Your task to perform on an android device: allow notifications from all sites in the chrome app Image 0: 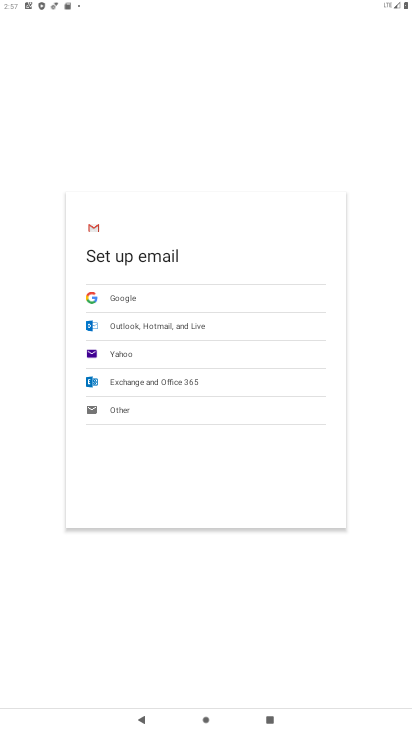
Step 0: press home button
Your task to perform on an android device: allow notifications from all sites in the chrome app Image 1: 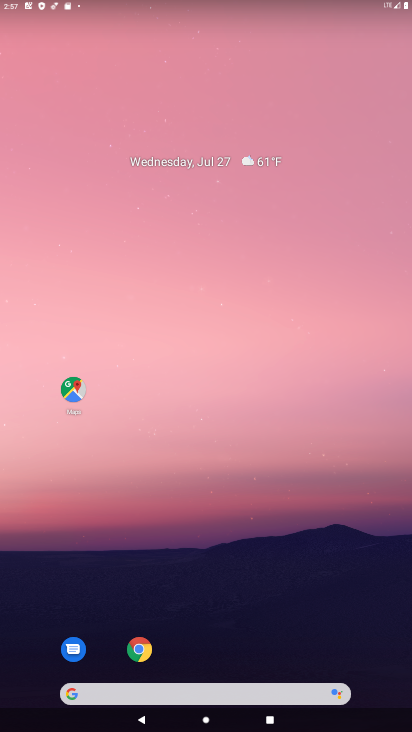
Step 1: click (167, 648)
Your task to perform on an android device: allow notifications from all sites in the chrome app Image 2: 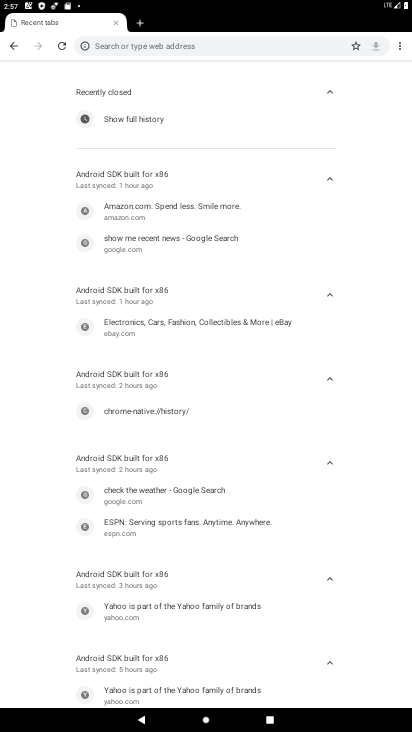
Step 2: press home button
Your task to perform on an android device: allow notifications from all sites in the chrome app Image 3: 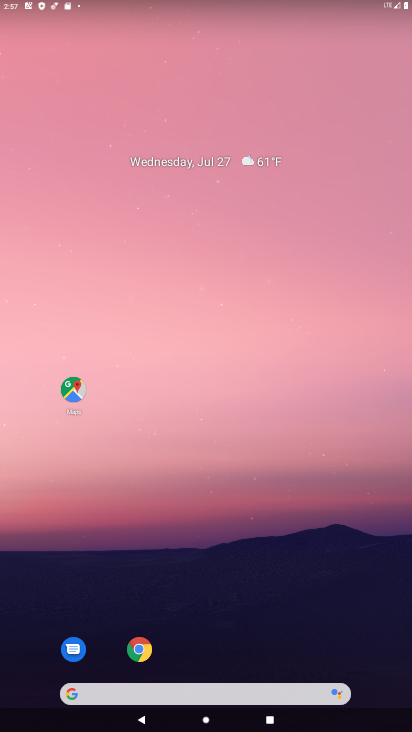
Step 3: click (195, 87)
Your task to perform on an android device: allow notifications from all sites in the chrome app Image 4: 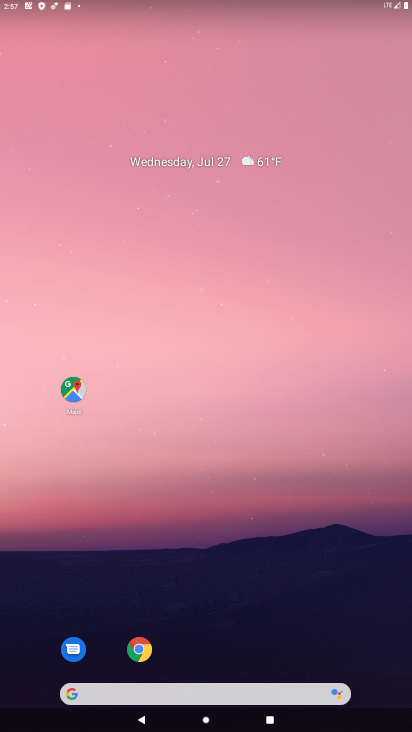
Step 4: drag from (177, 440) to (272, 110)
Your task to perform on an android device: allow notifications from all sites in the chrome app Image 5: 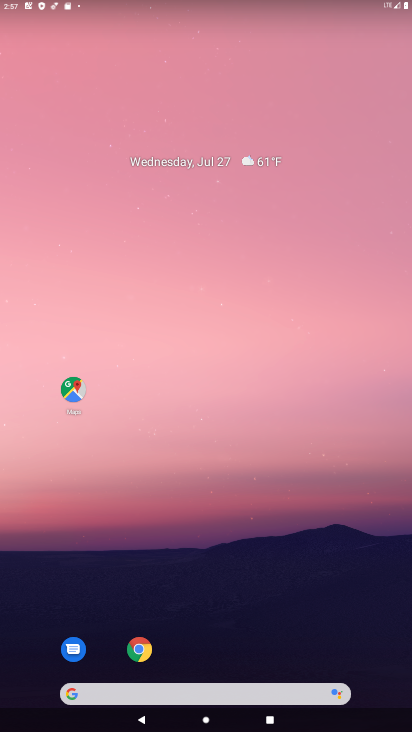
Step 5: drag from (181, 628) to (209, 88)
Your task to perform on an android device: allow notifications from all sites in the chrome app Image 6: 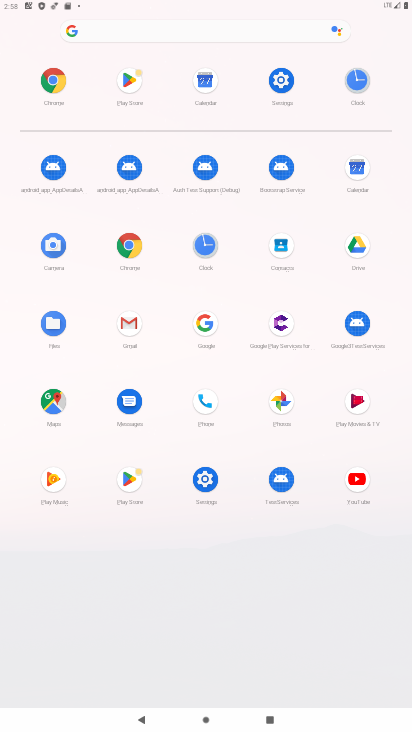
Step 6: click (122, 257)
Your task to perform on an android device: allow notifications from all sites in the chrome app Image 7: 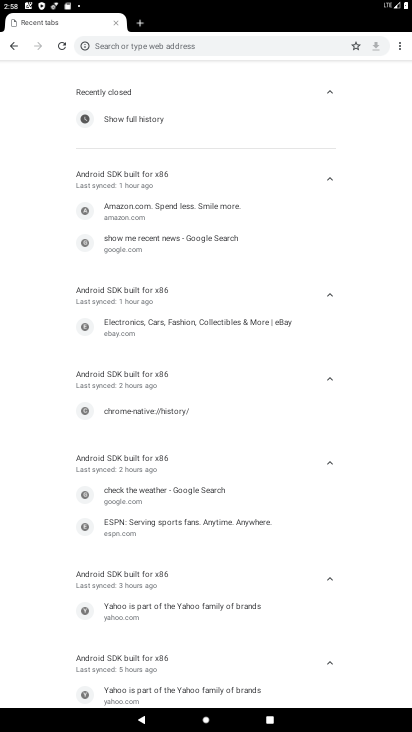
Step 7: press back button
Your task to perform on an android device: allow notifications from all sites in the chrome app Image 8: 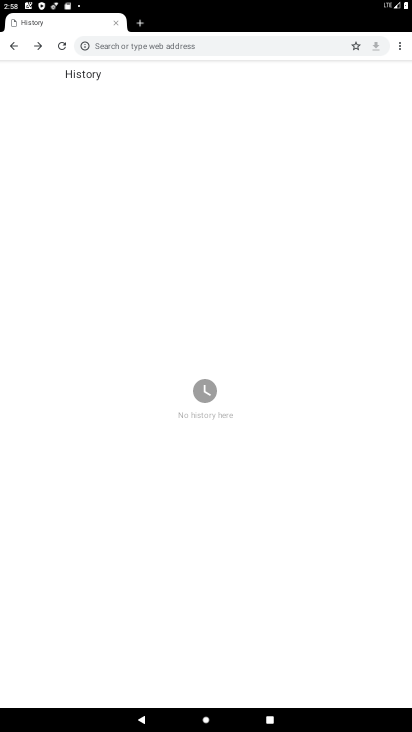
Step 8: press back button
Your task to perform on an android device: allow notifications from all sites in the chrome app Image 9: 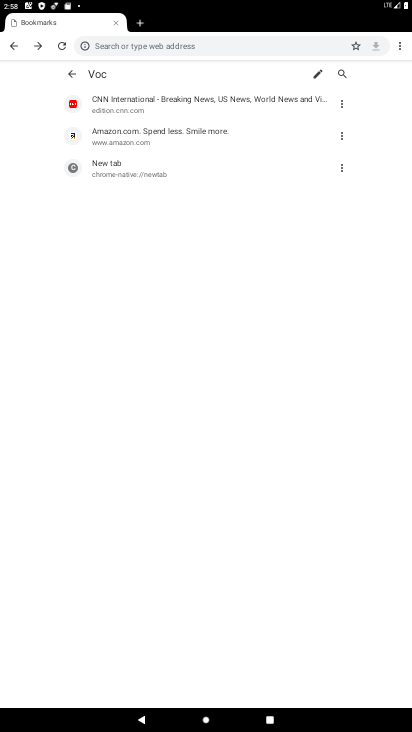
Step 9: press back button
Your task to perform on an android device: allow notifications from all sites in the chrome app Image 10: 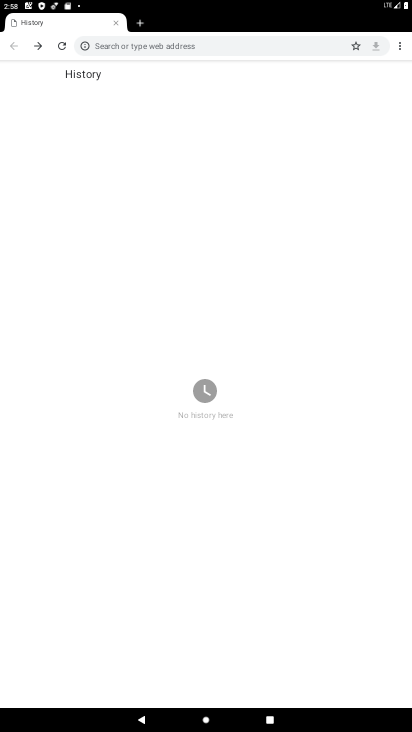
Step 10: press back button
Your task to perform on an android device: allow notifications from all sites in the chrome app Image 11: 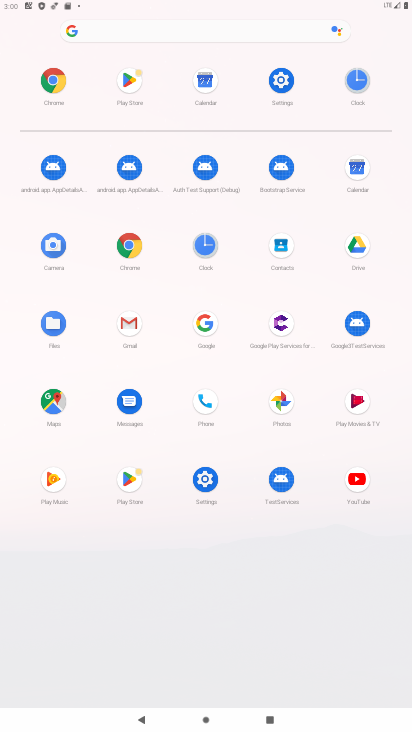
Step 11: click (282, 96)
Your task to perform on an android device: allow notifications from all sites in the chrome app Image 12: 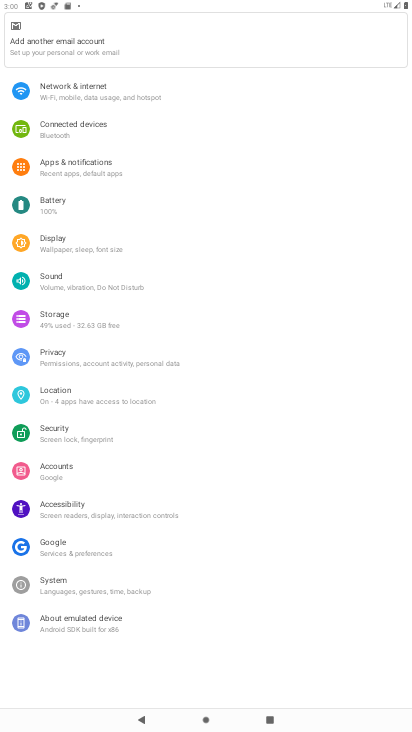
Step 12: press back button
Your task to perform on an android device: allow notifications from all sites in the chrome app Image 13: 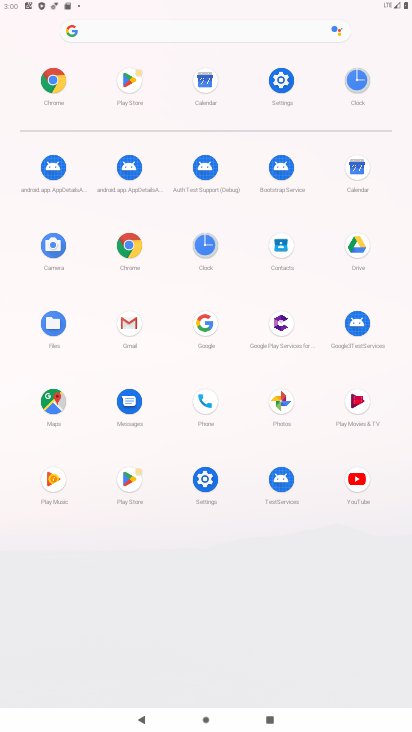
Step 13: click (124, 257)
Your task to perform on an android device: allow notifications from all sites in the chrome app Image 14: 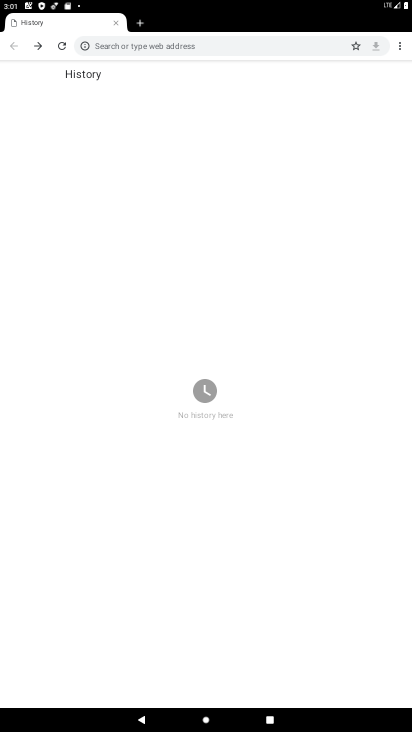
Step 14: click (399, 48)
Your task to perform on an android device: allow notifications from all sites in the chrome app Image 15: 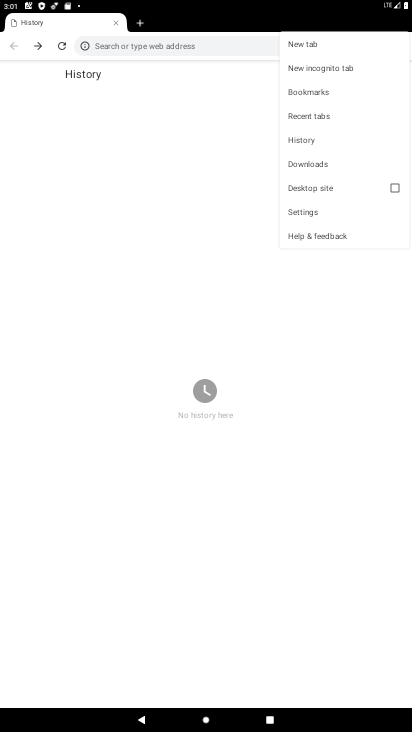
Step 15: click (316, 214)
Your task to perform on an android device: allow notifications from all sites in the chrome app Image 16: 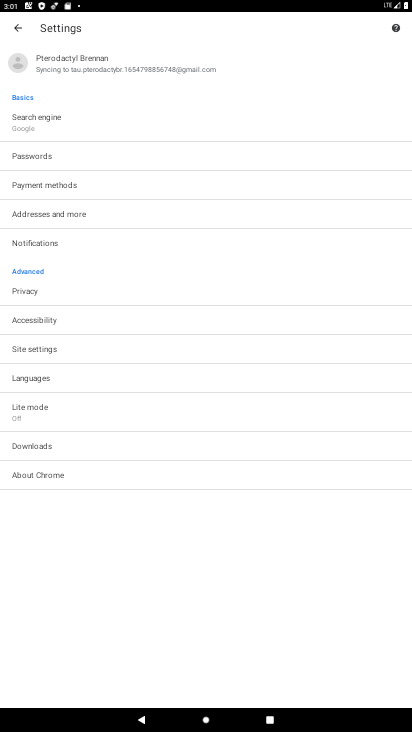
Step 16: click (37, 346)
Your task to perform on an android device: allow notifications from all sites in the chrome app Image 17: 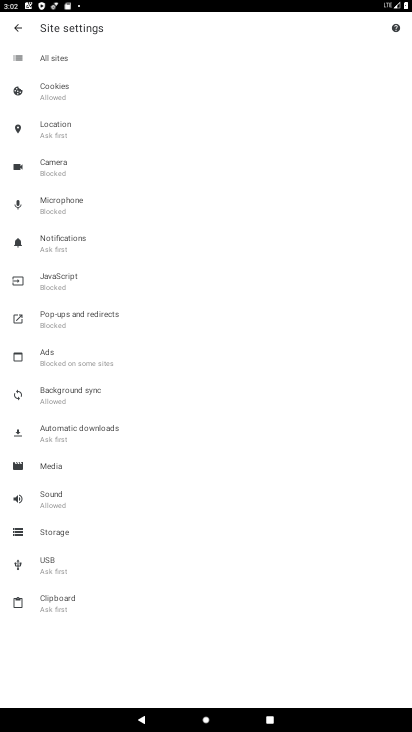
Step 17: click (52, 234)
Your task to perform on an android device: allow notifications from all sites in the chrome app Image 18: 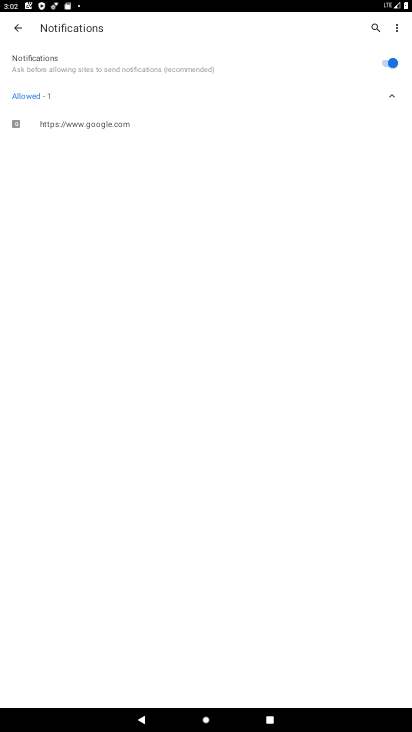
Step 18: task complete